Your task to perform on an android device: remove spam from my inbox in the gmail app Image 0: 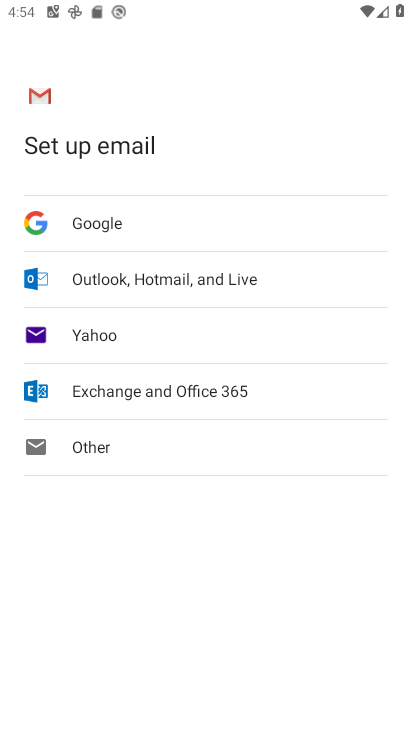
Step 0: press home button
Your task to perform on an android device: remove spam from my inbox in the gmail app Image 1: 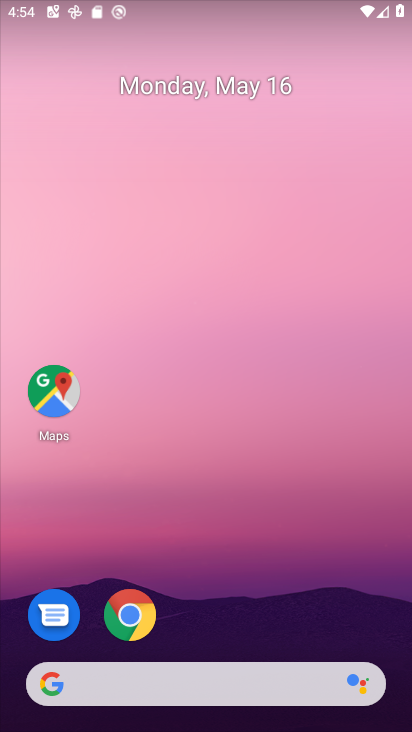
Step 1: drag from (220, 599) to (138, 302)
Your task to perform on an android device: remove spam from my inbox in the gmail app Image 2: 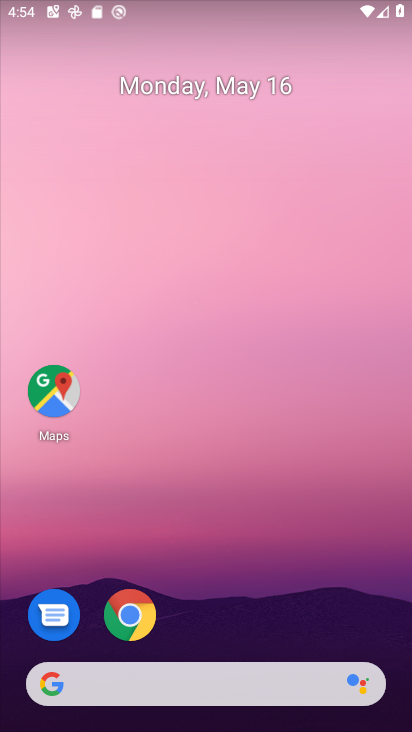
Step 2: drag from (190, 609) to (170, 51)
Your task to perform on an android device: remove spam from my inbox in the gmail app Image 3: 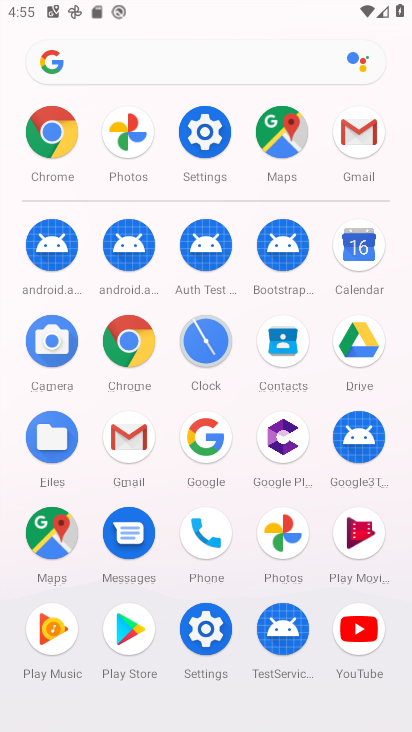
Step 3: click (362, 147)
Your task to perform on an android device: remove spam from my inbox in the gmail app Image 4: 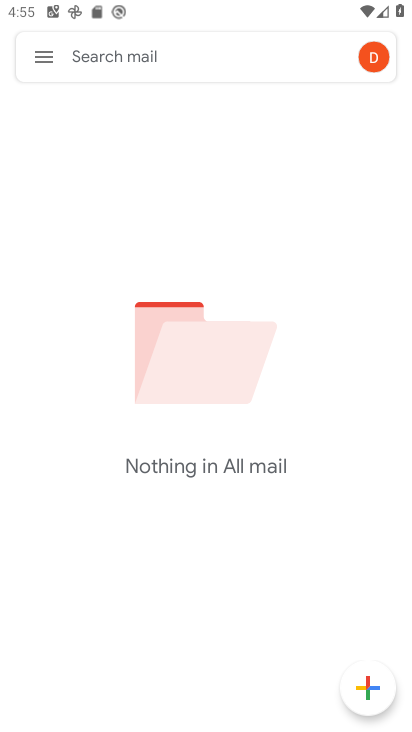
Step 4: click (51, 59)
Your task to perform on an android device: remove spam from my inbox in the gmail app Image 5: 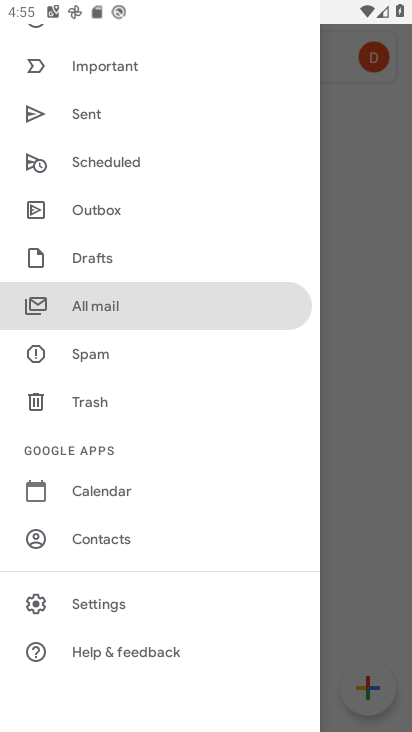
Step 5: click (88, 360)
Your task to perform on an android device: remove spam from my inbox in the gmail app Image 6: 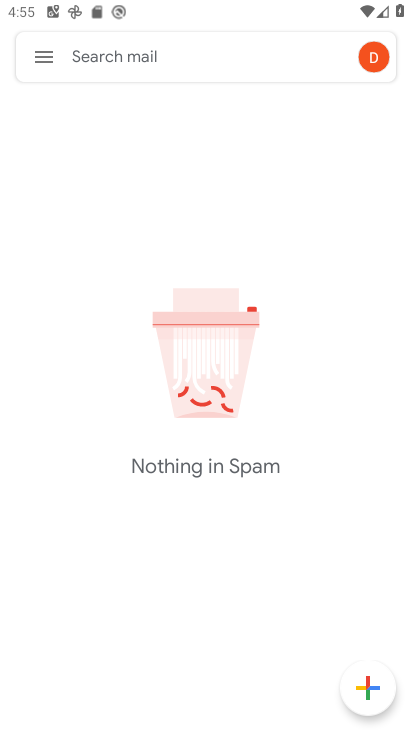
Step 6: task complete